Your task to perform on an android device: Go to Amazon Image 0: 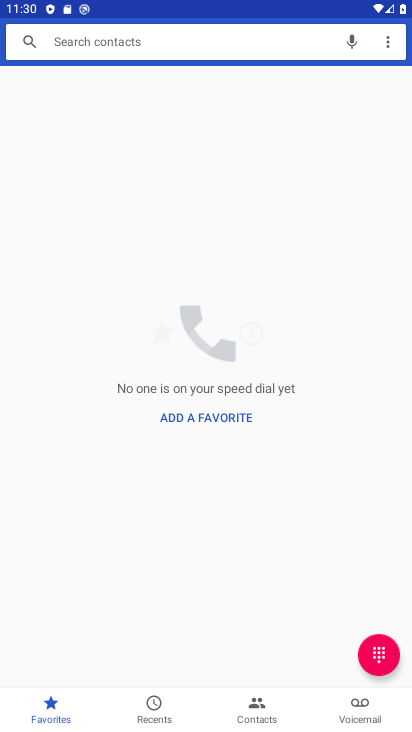
Step 0: press home button
Your task to perform on an android device: Go to Amazon Image 1: 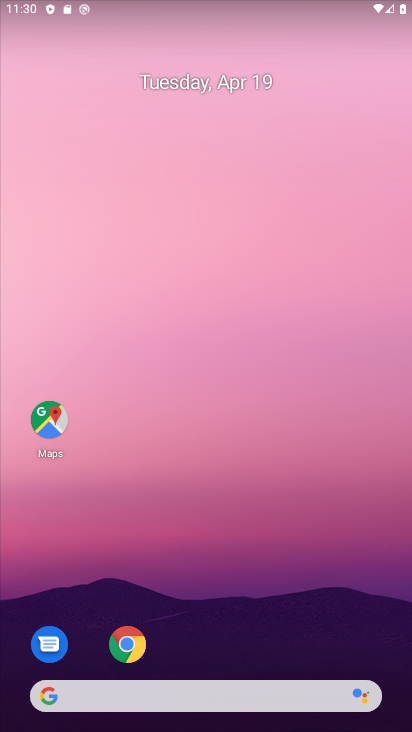
Step 1: click (125, 644)
Your task to perform on an android device: Go to Amazon Image 2: 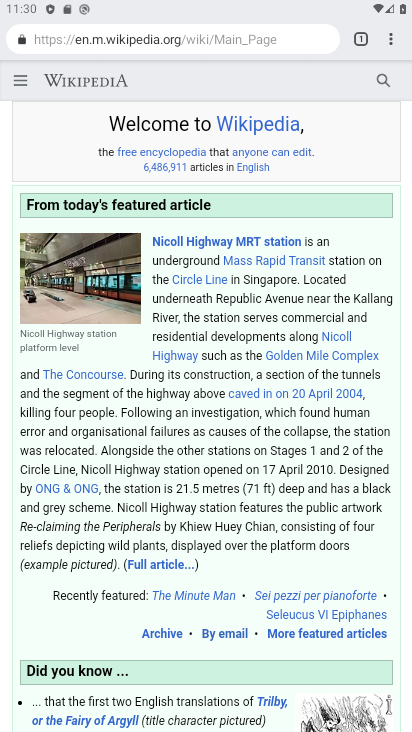
Step 2: click (185, 38)
Your task to perform on an android device: Go to Amazon Image 3: 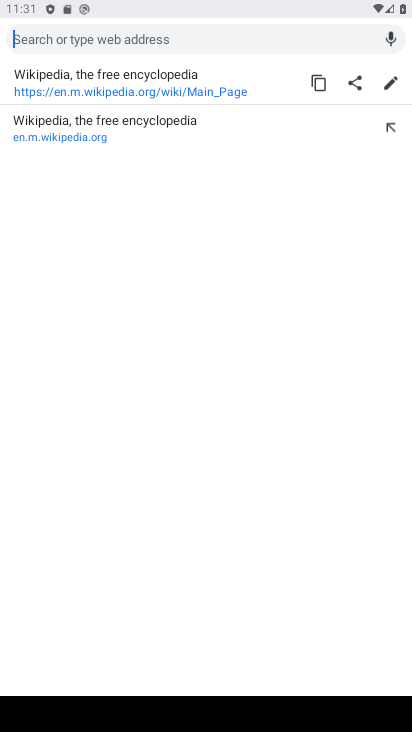
Step 3: type "amazone"
Your task to perform on an android device: Go to Amazon Image 4: 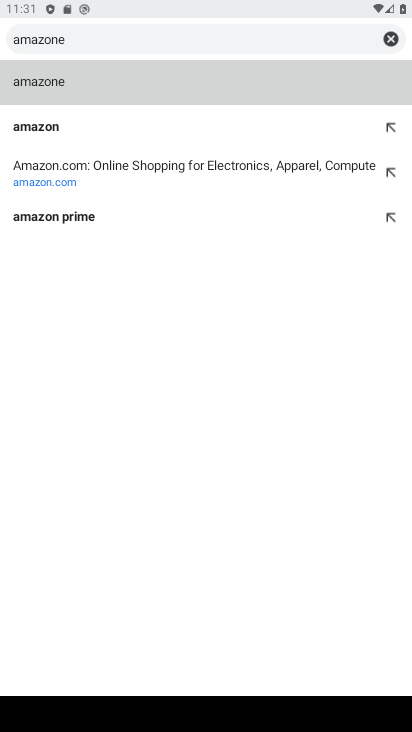
Step 4: click (119, 159)
Your task to perform on an android device: Go to Amazon Image 5: 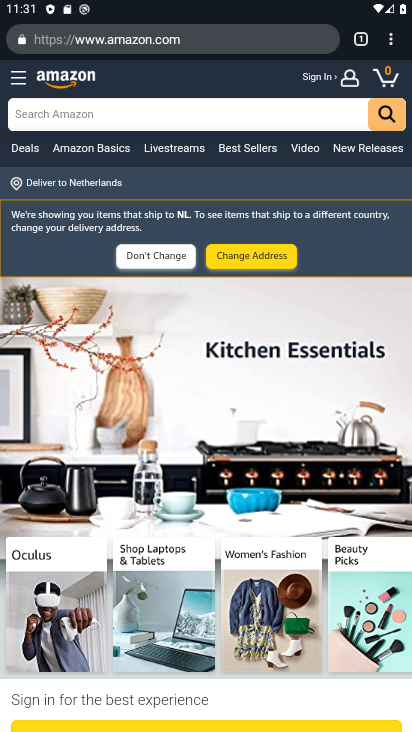
Step 5: task complete